Your task to perform on an android device: Turn on the flashlight Image 0: 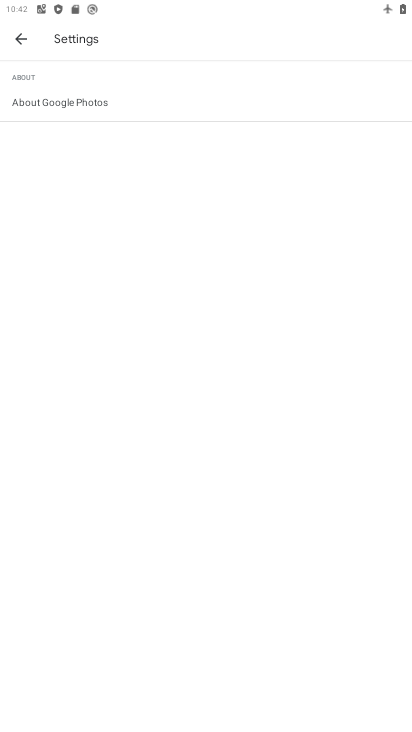
Step 0: press home button
Your task to perform on an android device: Turn on the flashlight Image 1: 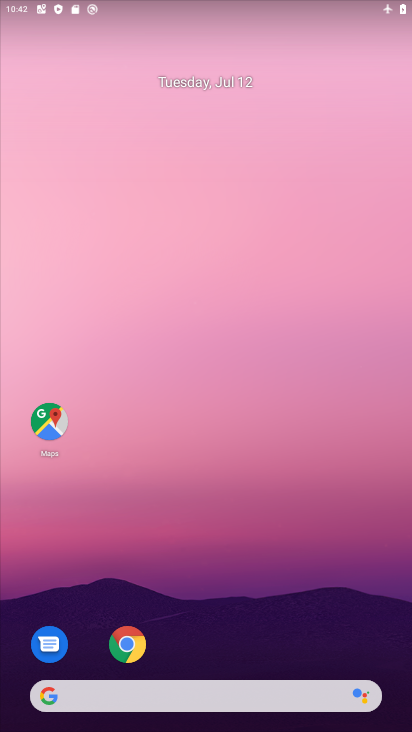
Step 1: drag from (257, 548) to (290, 53)
Your task to perform on an android device: Turn on the flashlight Image 2: 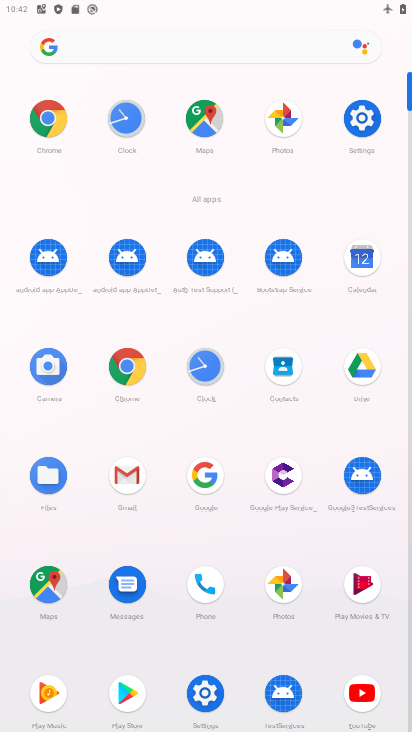
Step 2: click (360, 118)
Your task to perform on an android device: Turn on the flashlight Image 3: 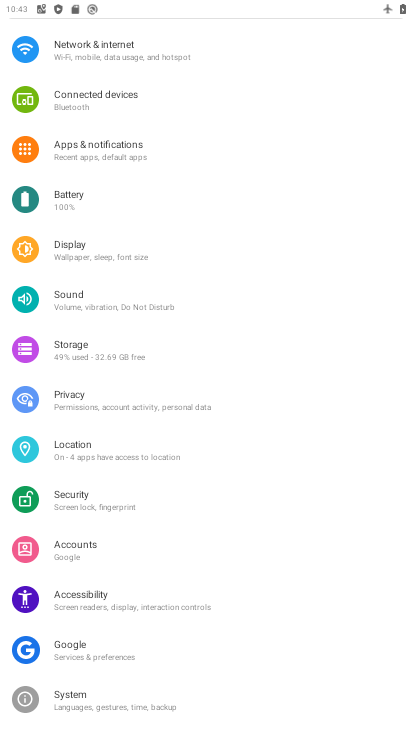
Step 3: task complete